Your task to perform on an android device: Show me recent news Image 0: 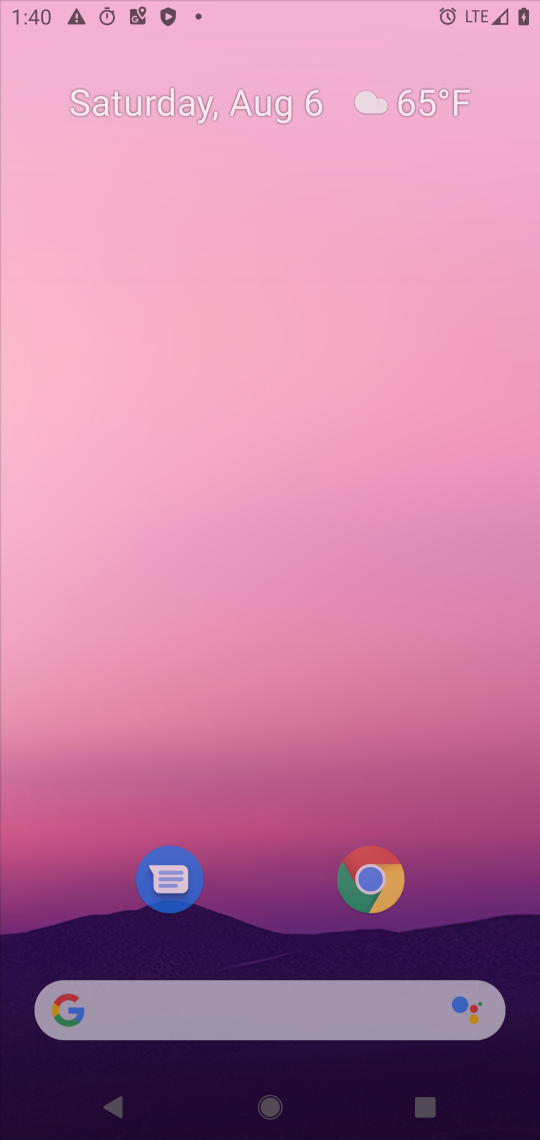
Step 0: press home button
Your task to perform on an android device: Show me recent news Image 1: 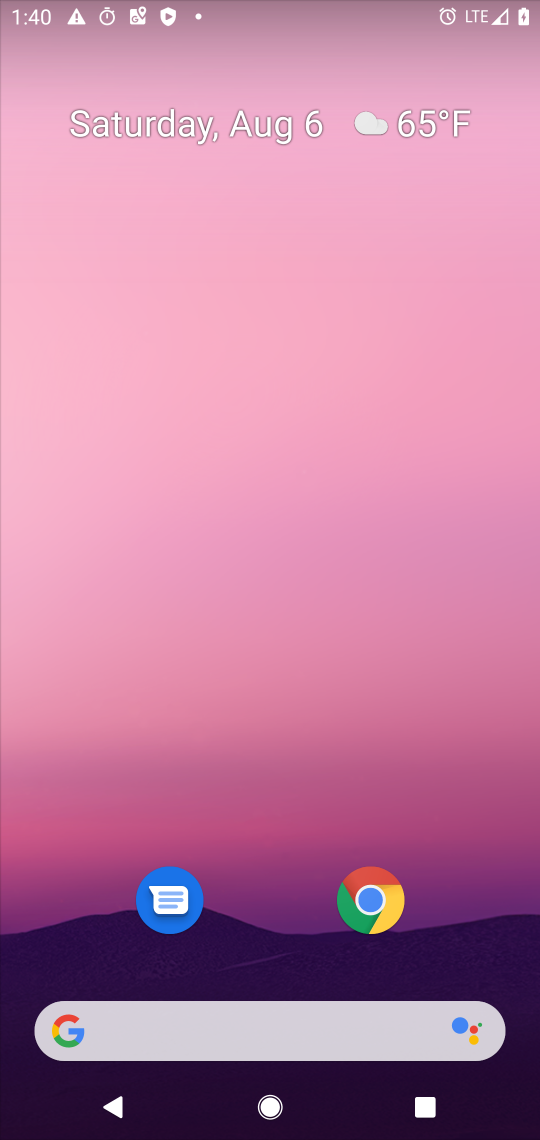
Step 1: task complete